Your task to perform on an android device: turn on the 24-hour format for clock Image 0: 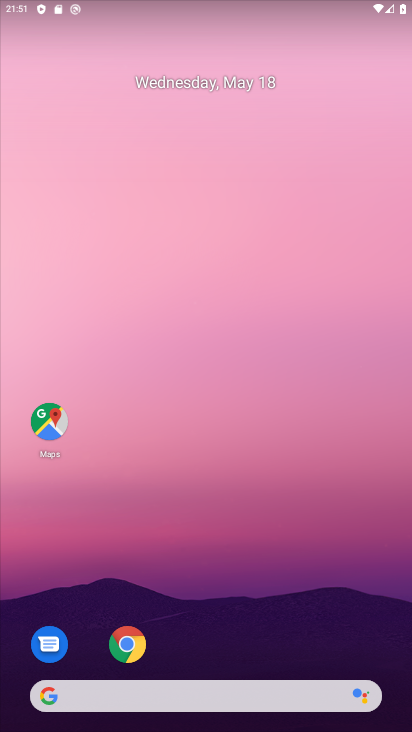
Step 0: drag from (258, 548) to (221, 241)
Your task to perform on an android device: turn on the 24-hour format for clock Image 1: 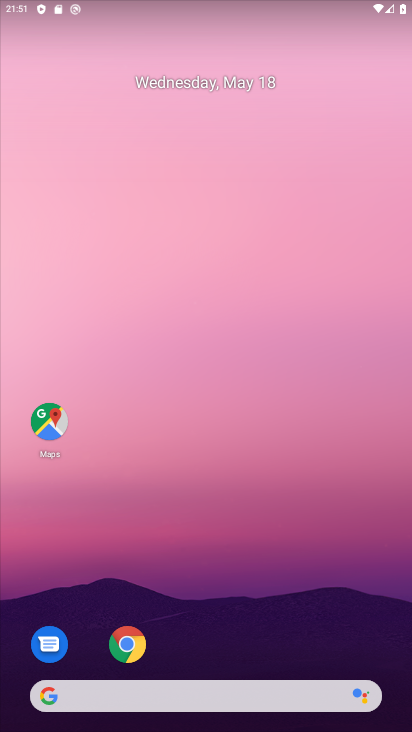
Step 1: drag from (231, 375) to (239, 247)
Your task to perform on an android device: turn on the 24-hour format for clock Image 2: 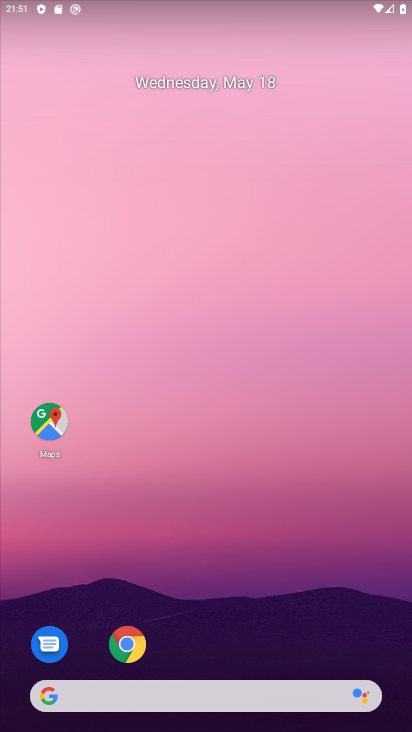
Step 2: drag from (282, 560) to (187, 158)
Your task to perform on an android device: turn on the 24-hour format for clock Image 3: 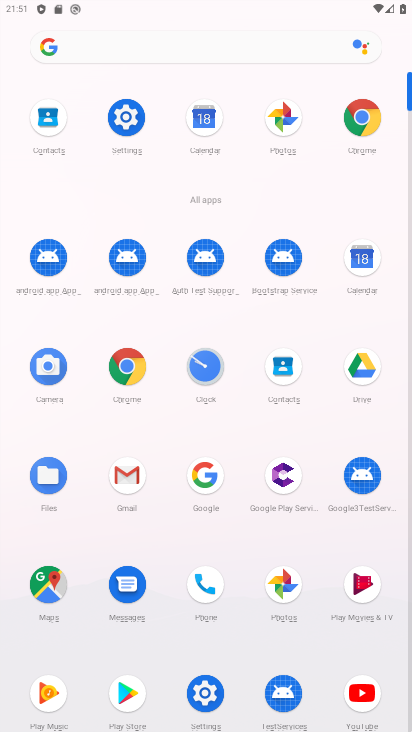
Step 3: click (203, 360)
Your task to perform on an android device: turn on the 24-hour format for clock Image 4: 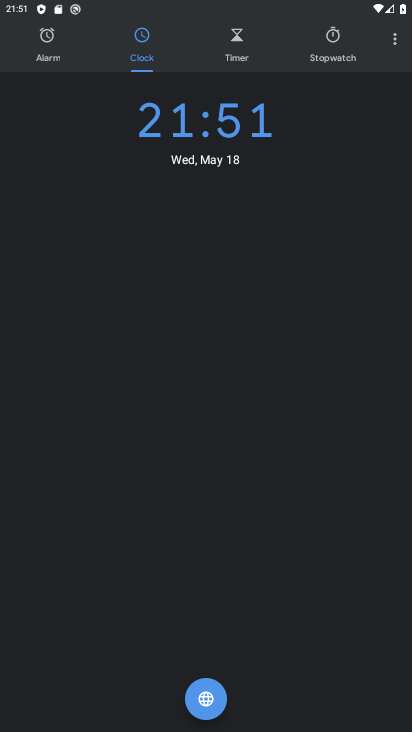
Step 4: drag from (396, 33) to (290, 77)
Your task to perform on an android device: turn on the 24-hour format for clock Image 5: 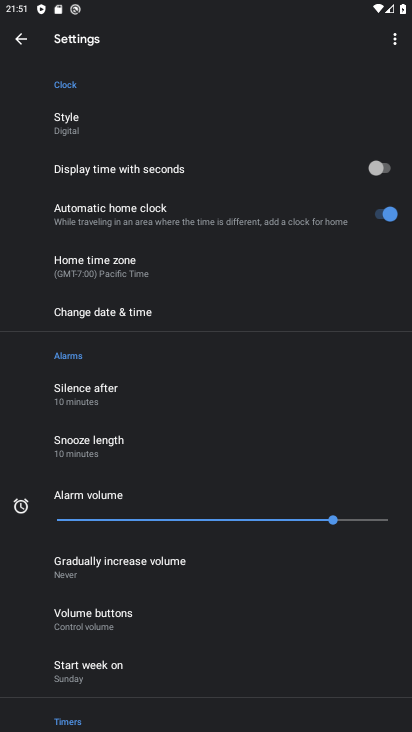
Step 5: click (131, 297)
Your task to perform on an android device: turn on the 24-hour format for clock Image 6: 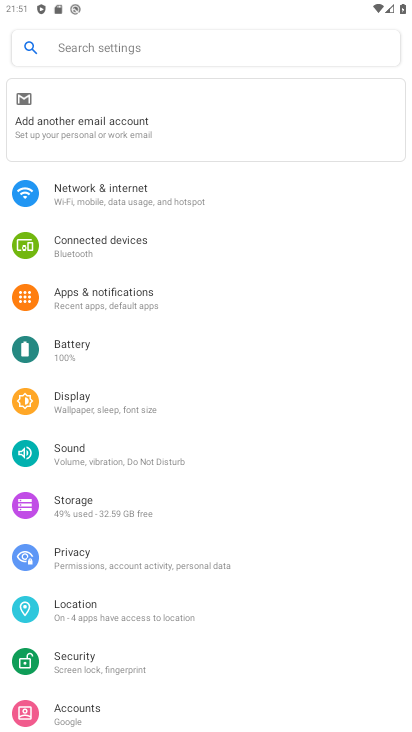
Step 6: task complete